Your task to perform on an android device: turn on the 24-hour format for clock Image 0: 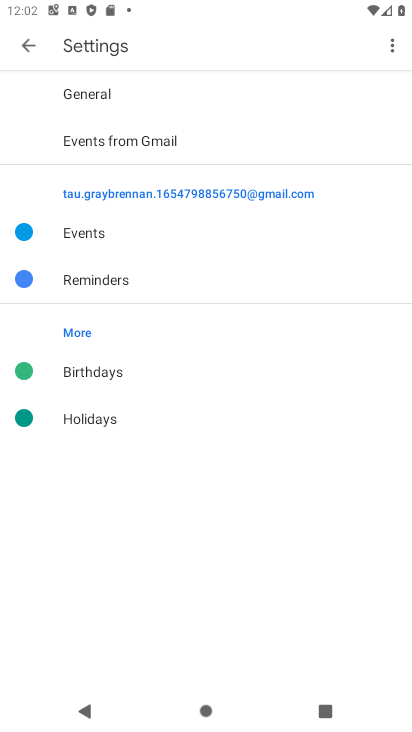
Step 0: press home button
Your task to perform on an android device: turn on the 24-hour format for clock Image 1: 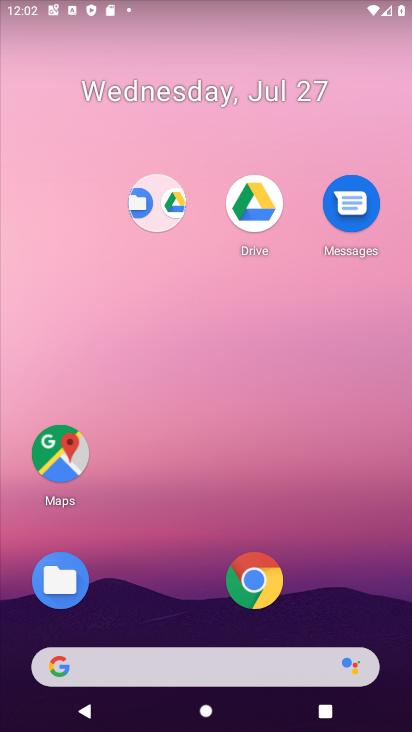
Step 1: drag from (148, 598) to (162, 40)
Your task to perform on an android device: turn on the 24-hour format for clock Image 2: 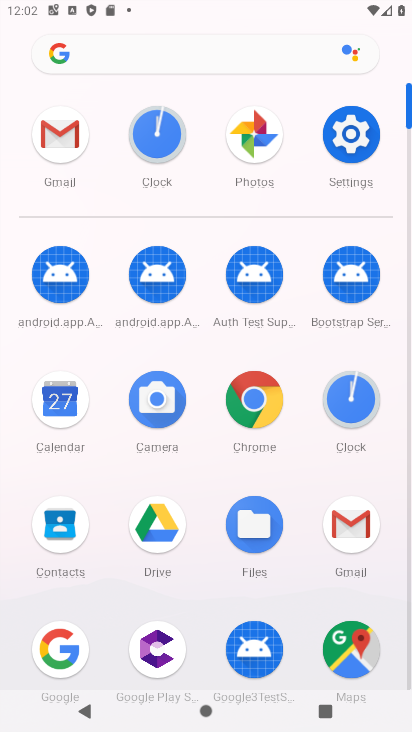
Step 2: click (360, 399)
Your task to perform on an android device: turn on the 24-hour format for clock Image 3: 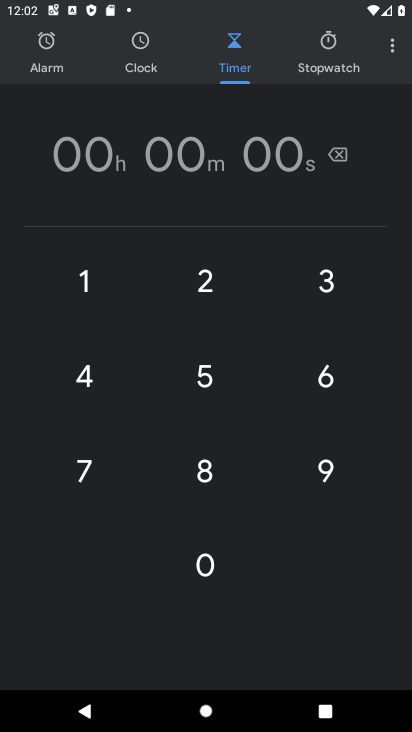
Step 3: click (399, 46)
Your task to perform on an android device: turn on the 24-hour format for clock Image 4: 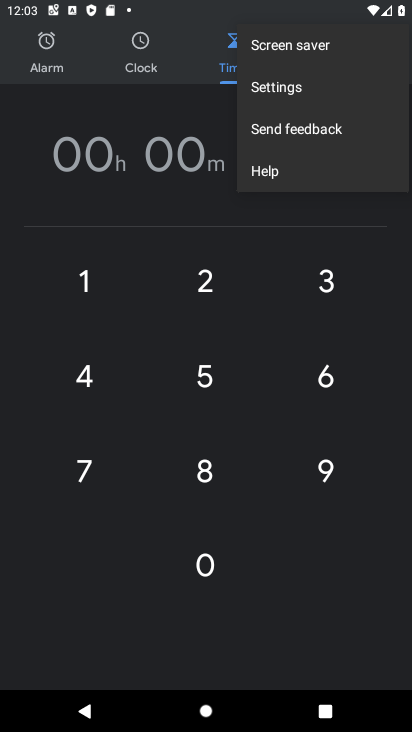
Step 4: click (290, 98)
Your task to perform on an android device: turn on the 24-hour format for clock Image 5: 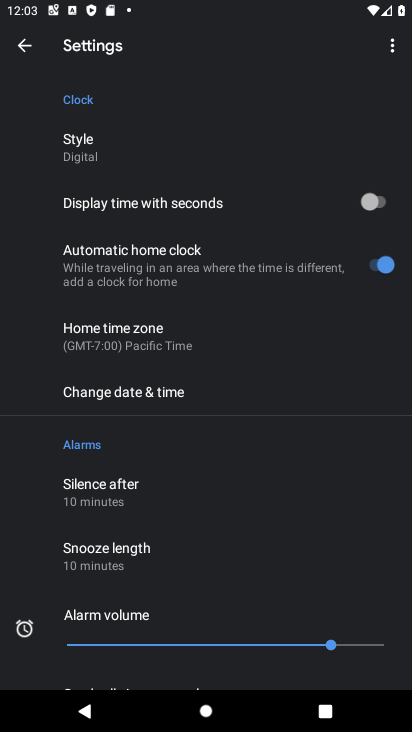
Step 5: click (196, 397)
Your task to perform on an android device: turn on the 24-hour format for clock Image 6: 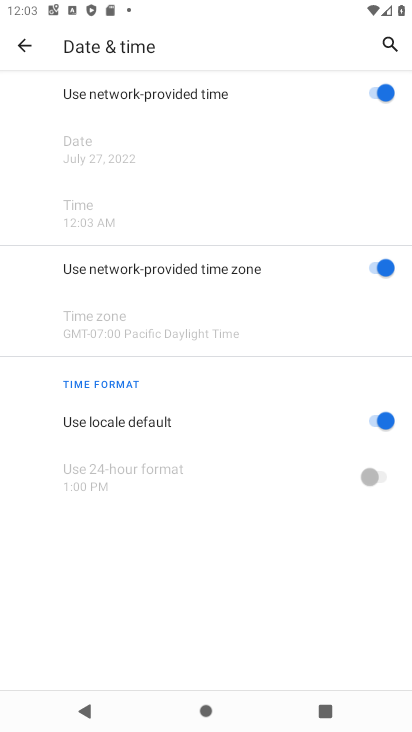
Step 6: click (374, 419)
Your task to perform on an android device: turn on the 24-hour format for clock Image 7: 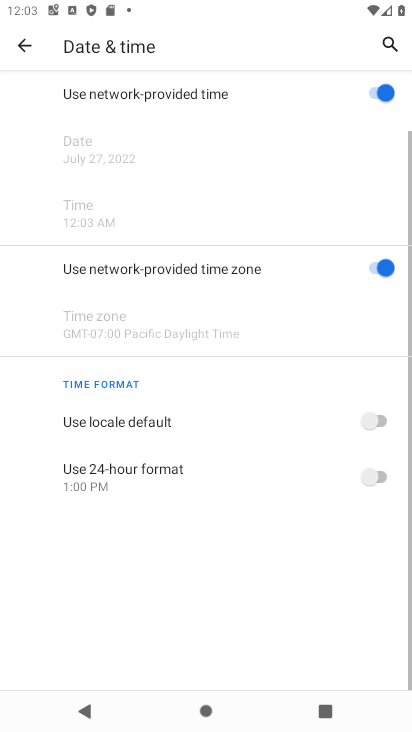
Step 7: click (381, 481)
Your task to perform on an android device: turn on the 24-hour format for clock Image 8: 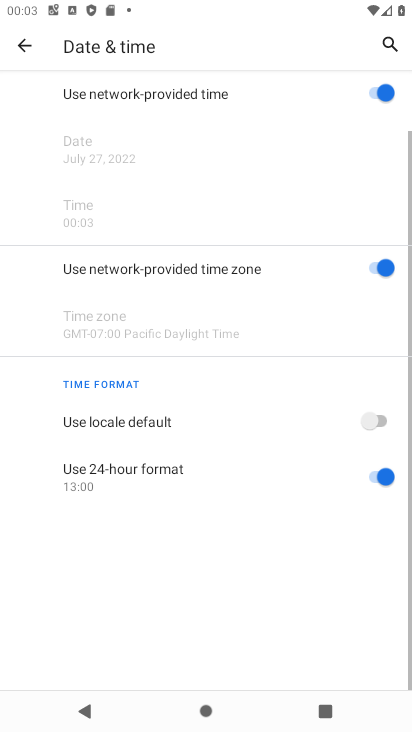
Step 8: task complete